Your task to perform on an android device: find photos in the google photos app Image 0: 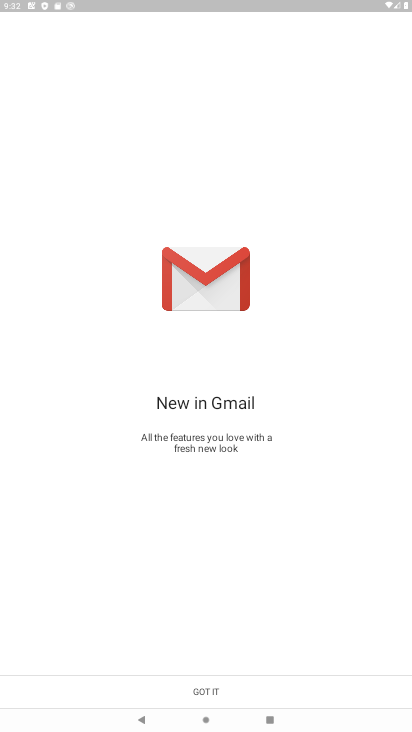
Step 0: press home button
Your task to perform on an android device: find photos in the google photos app Image 1: 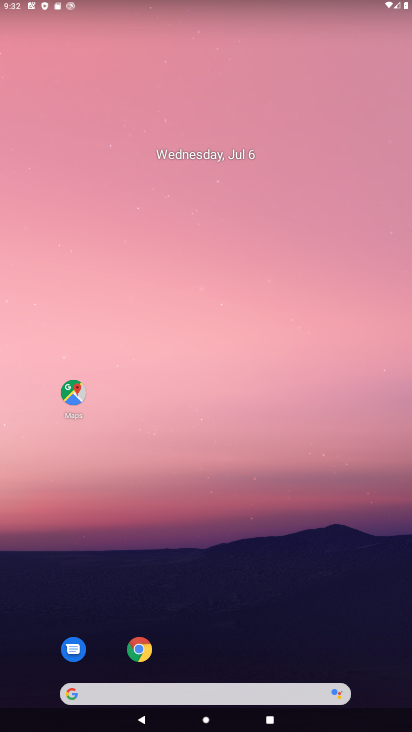
Step 1: drag from (212, 630) to (213, 226)
Your task to perform on an android device: find photos in the google photos app Image 2: 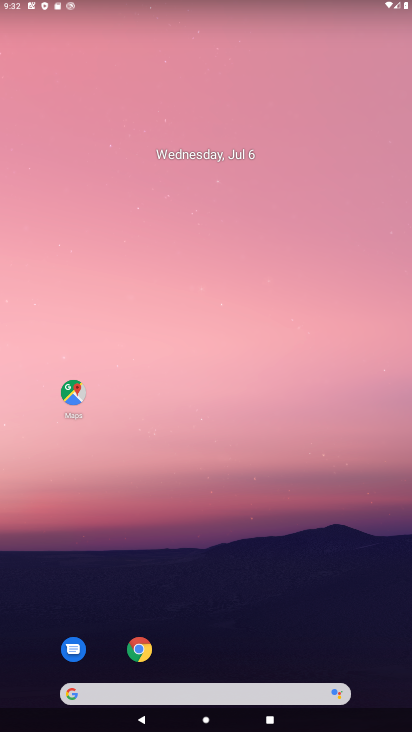
Step 2: drag from (217, 627) to (255, 71)
Your task to perform on an android device: find photos in the google photos app Image 3: 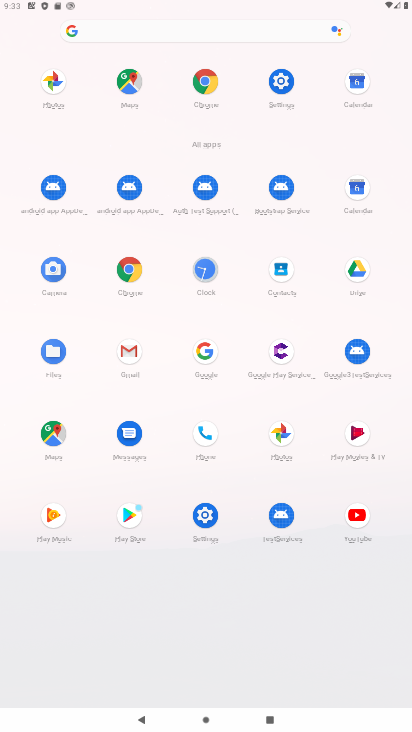
Step 3: click (50, 84)
Your task to perform on an android device: find photos in the google photos app Image 4: 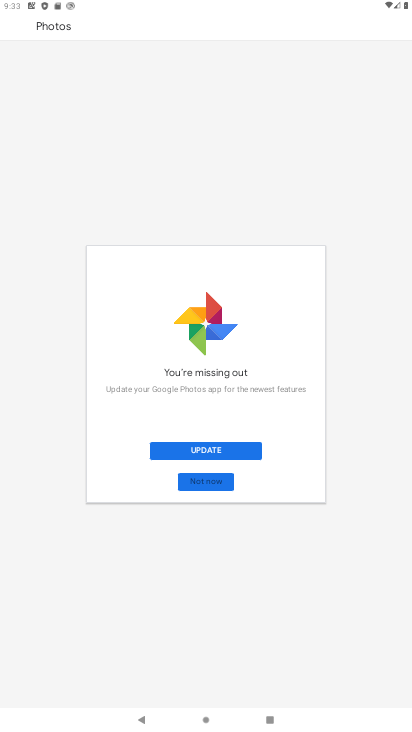
Step 4: click (202, 445)
Your task to perform on an android device: find photos in the google photos app Image 5: 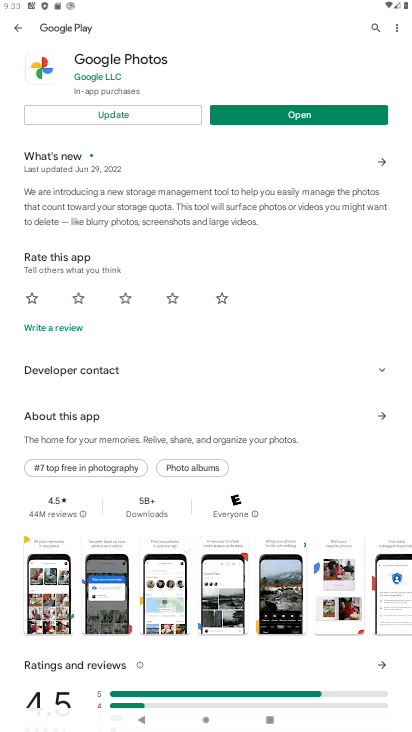
Step 5: click (122, 117)
Your task to perform on an android device: find photos in the google photos app Image 6: 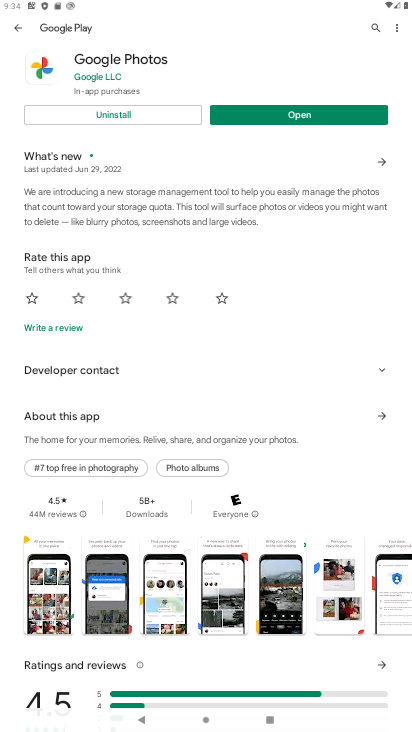
Step 6: click (262, 114)
Your task to perform on an android device: find photos in the google photos app Image 7: 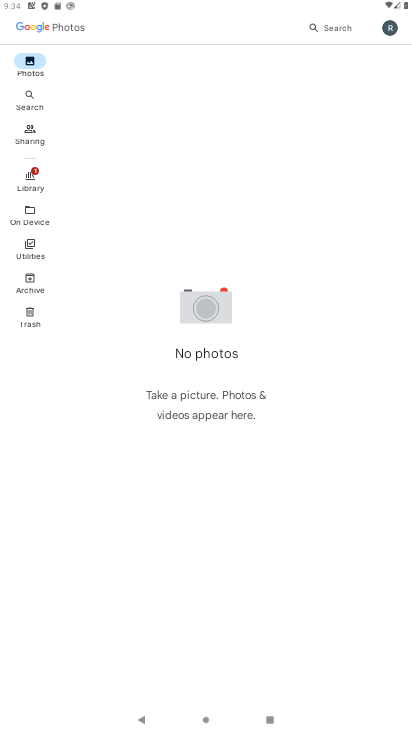
Step 7: click (35, 107)
Your task to perform on an android device: find photos in the google photos app Image 8: 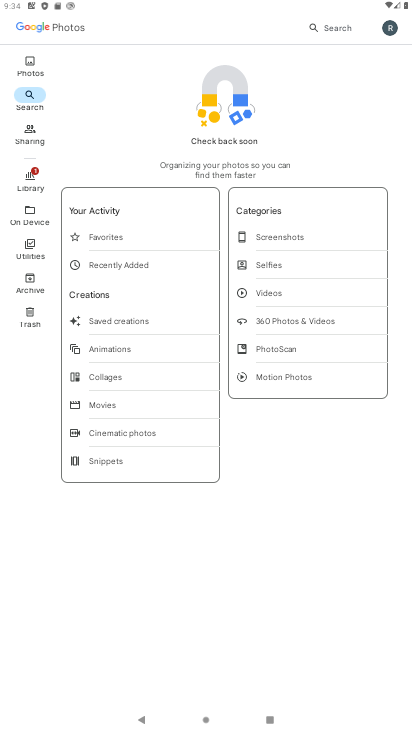
Step 8: click (117, 233)
Your task to perform on an android device: find photos in the google photos app Image 9: 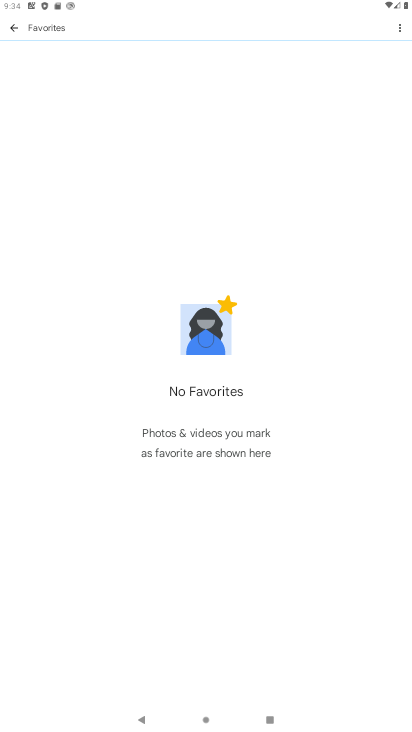
Step 9: press back button
Your task to perform on an android device: find photos in the google photos app Image 10: 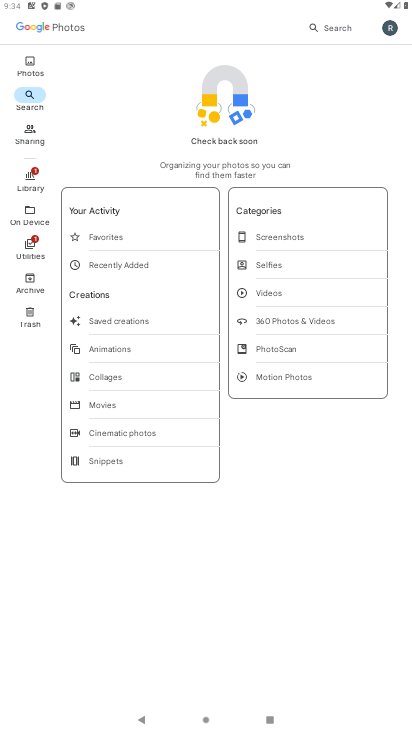
Step 10: click (118, 261)
Your task to perform on an android device: find photos in the google photos app Image 11: 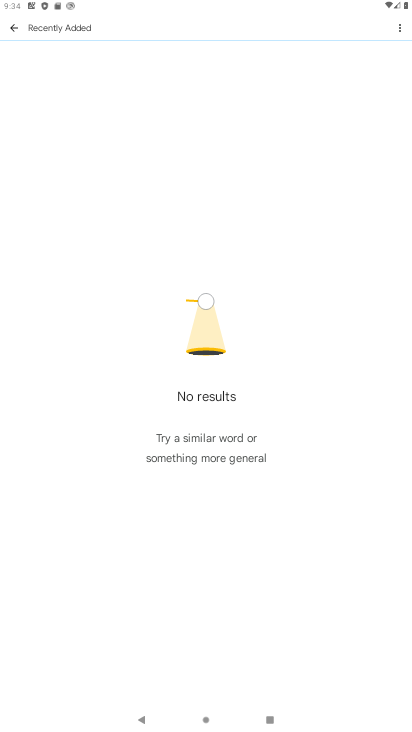
Step 11: click (15, 26)
Your task to perform on an android device: find photos in the google photos app Image 12: 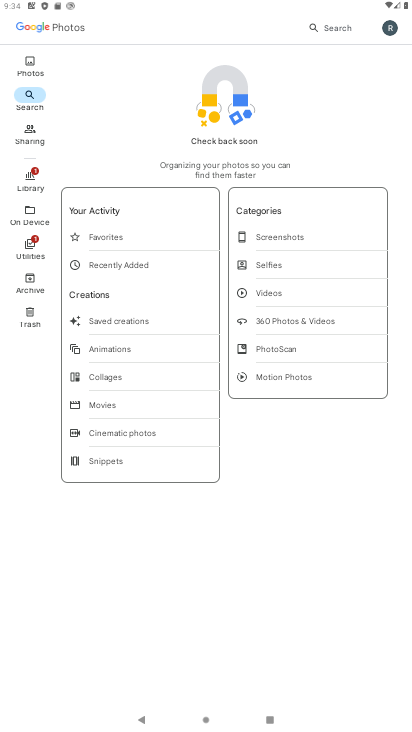
Step 12: click (39, 72)
Your task to perform on an android device: find photos in the google photos app Image 13: 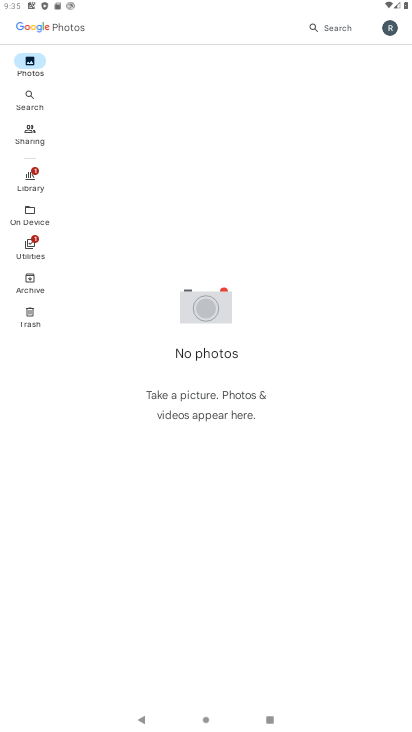
Step 13: click (33, 104)
Your task to perform on an android device: find photos in the google photos app Image 14: 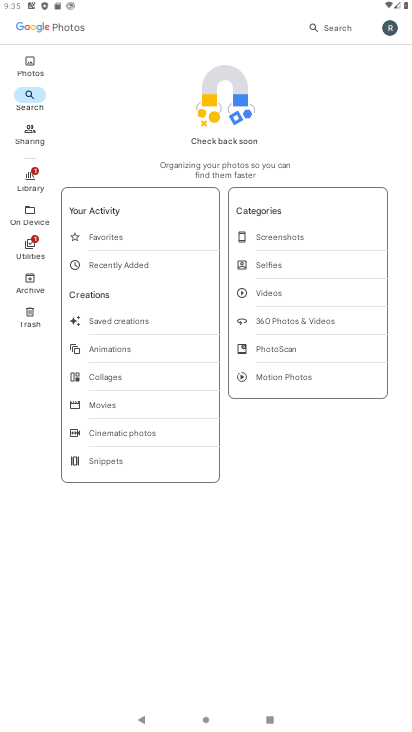
Step 14: click (111, 237)
Your task to perform on an android device: find photos in the google photos app Image 15: 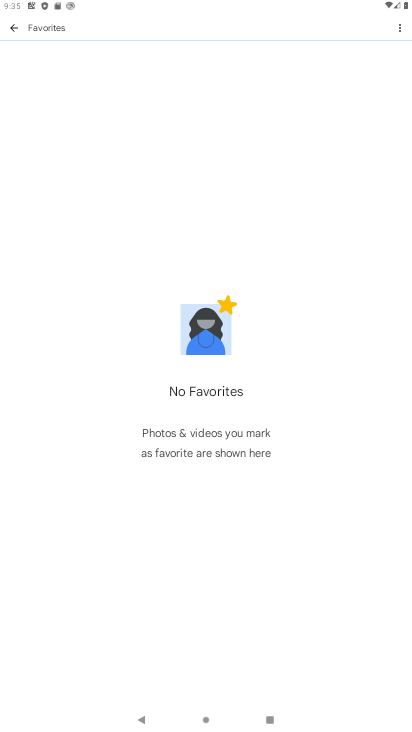
Step 15: task complete